Your task to perform on an android device: open wifi settings Image 0: 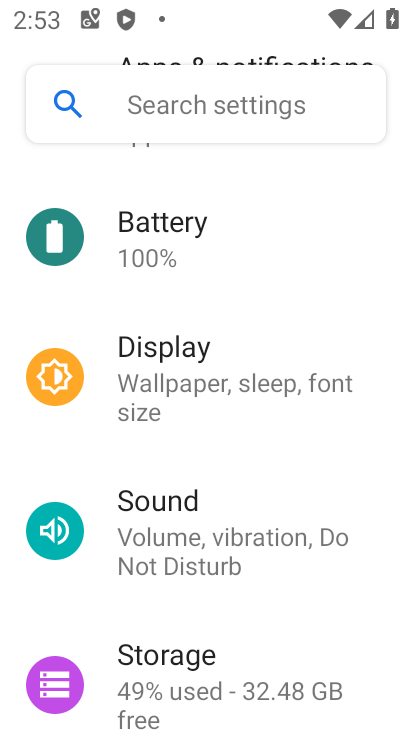
Step 0: press home button
Your task to perform on an android device: open wifi settings Image 1: 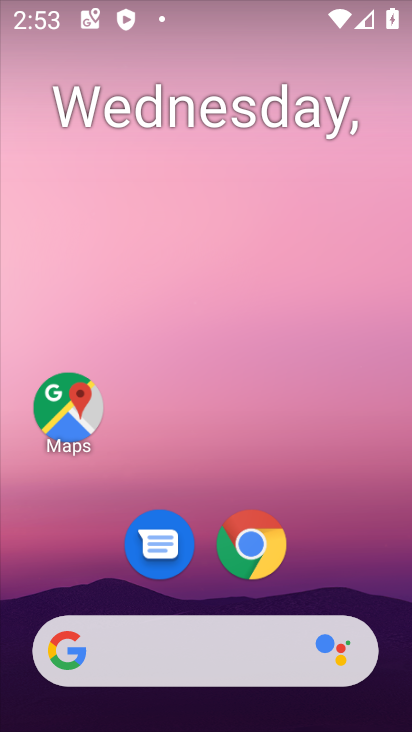
Step 1: drag from (372, 582) to (339, 239)
Your task to perform on an android device: open wifi settings Image 2: 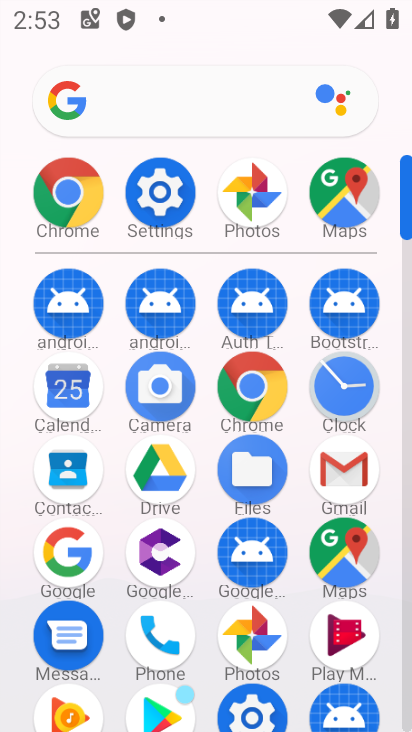
Step 2: click (148, 191)
Your task to perform on an android device: open wifi settings Image 3: 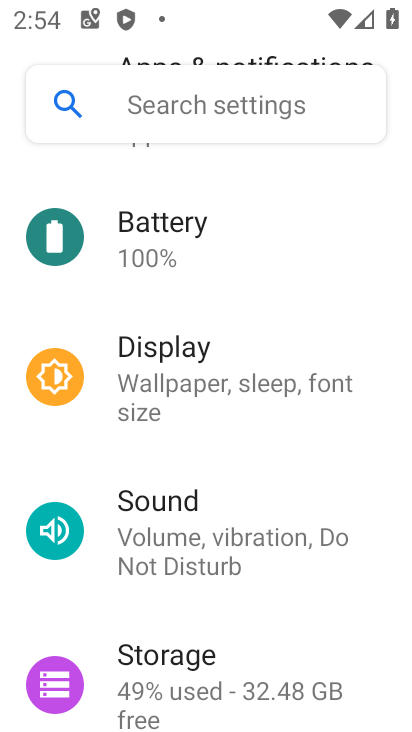
Step 3: drag from (243, 213) to (254, 533)
Your task to perform on an android device: open wifi settings Image 4: 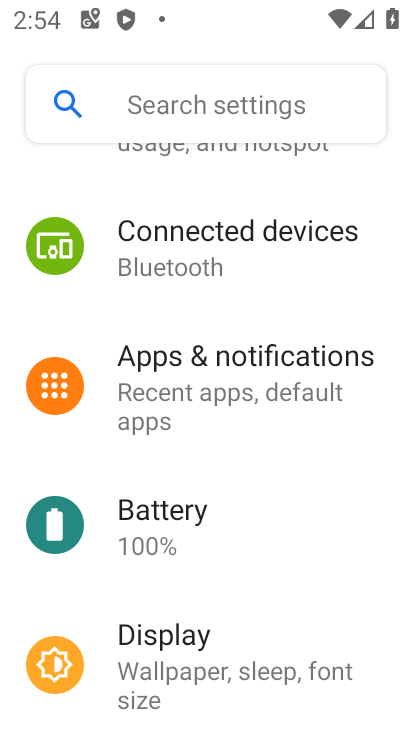
Step 4: drag from (280, 255) to (252, 596)
Your task to perform on an android device: open wifi settings Image 5: 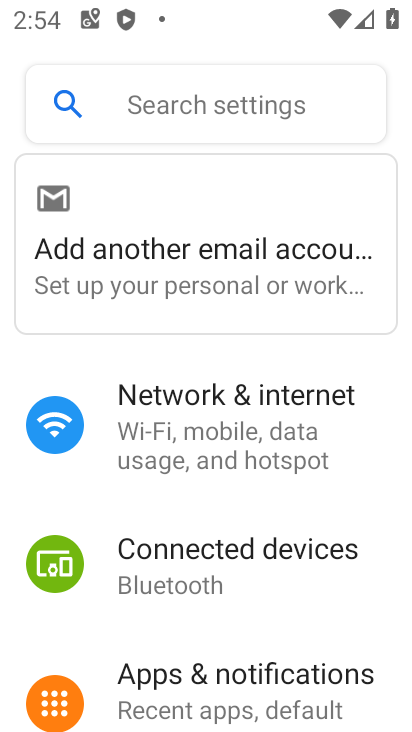
Step 5: click (249, 475)
Your task to perform on an android device: open wifi settings Image 6: 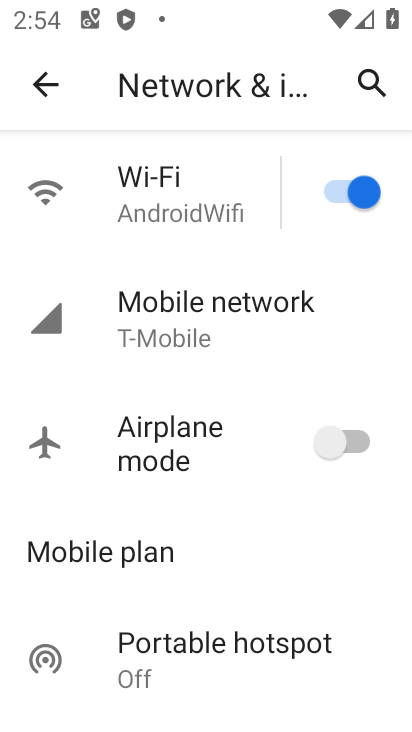
Step 6: click (233, 210)
Your task to perform on an android device: open wifi settings Image 7: 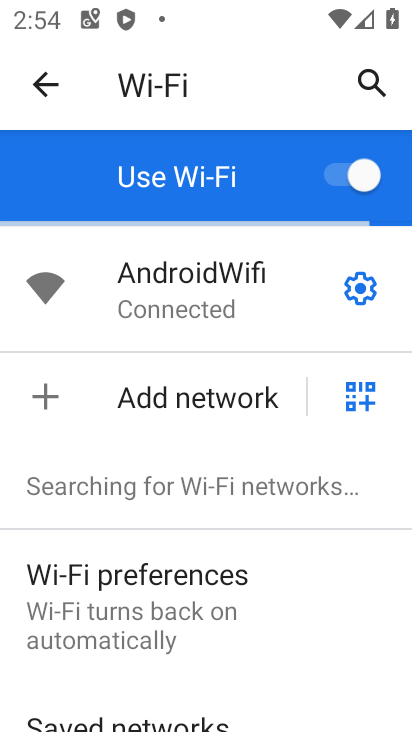
Step 7: task complete